Your task to perform on an android device: turn on showing notifications on the lock screen Image 0: 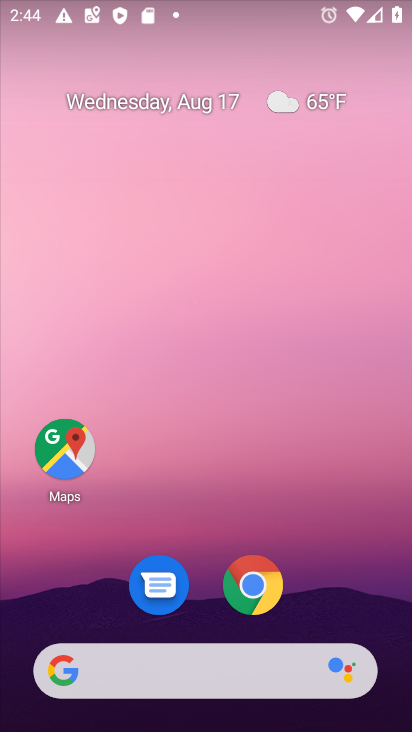
Step 0: drag from (214, 523) to (245, 0)
Your task to perform on an android device: turn on showing notifications on the lock screen Image 1: 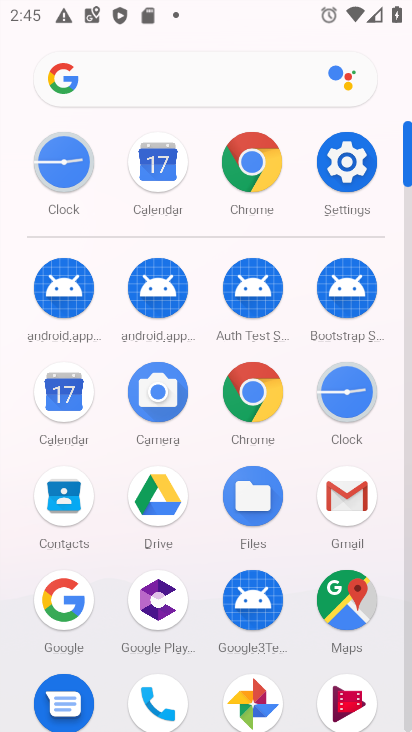
Step 1: click (357, 159)
Your task to perform on an android device: turn on showing notifications on the lock screen Image 2: 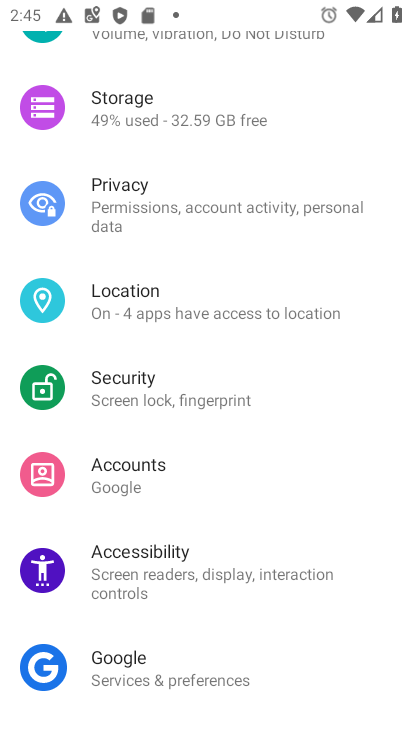
Step 2: drag from (224, 169) to (250, 661)
Your task to perform on an android device: turn on showing notifications on the lock screen Image 3: 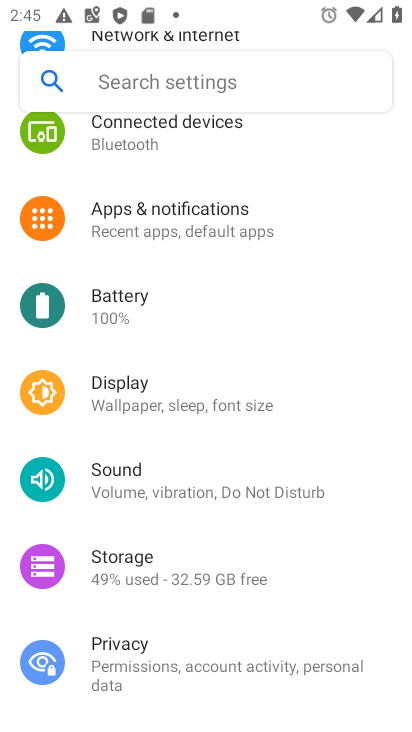
Step 3: drag from (190, 292) to (204, 573)
Your task to perform on an android device: turn on showing notifications on the lock screen Image 4: 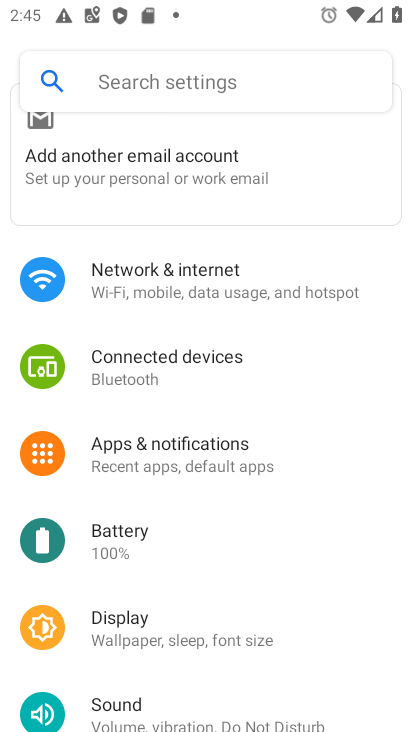
Step 4: click (200, 461)
Your task to perform on an android device: turn on showing notifications on the lock screen Image 5: 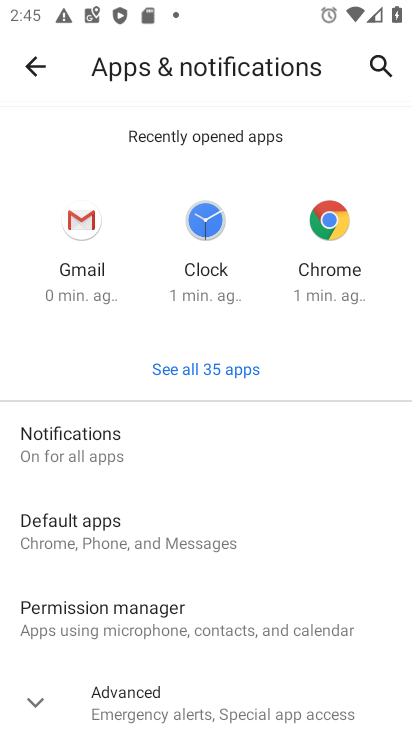
Step 5: click (106, 440)
Your task to perform on an android device: turn on showing notifications on the lock screen Image 6: 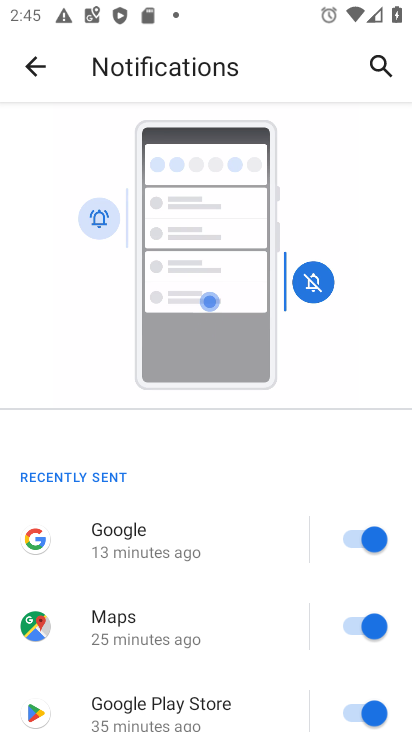
Step 6: drag from (233, 615) to (218, 176)
Your task to perform on an android device: turn on showing notifications on the lock screen Image 7: 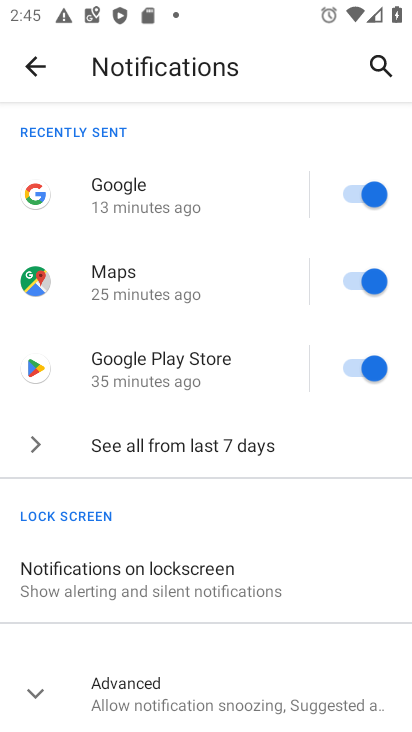
Step 7: click (228, 565)
Your task to perform on an android device: turn on showing notifications on the lock screen Image 8: 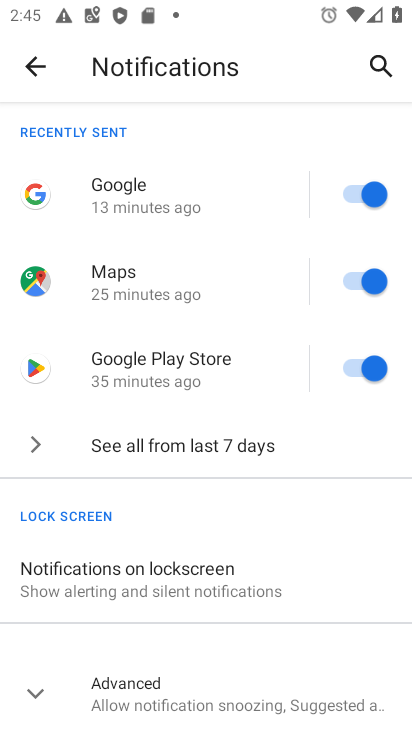
Step 8: click (228, 565)
Your task to perform on an android device: turn on showing notifications on the lock screen Image 9: 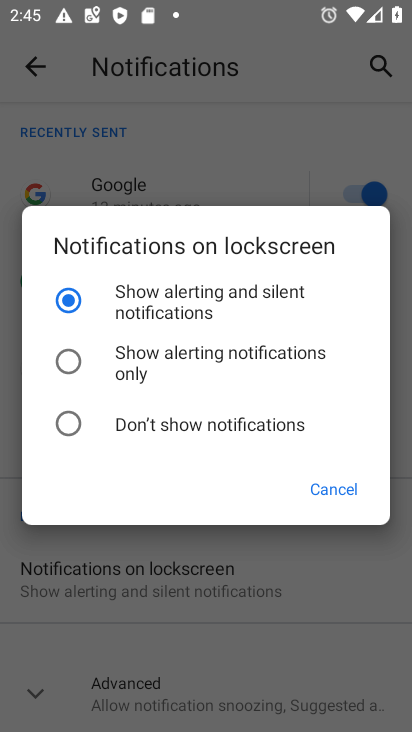
Step 9: click (203, 299)
Your task to perform on an android device: turn on showing notifications on the lock screen Image 10: 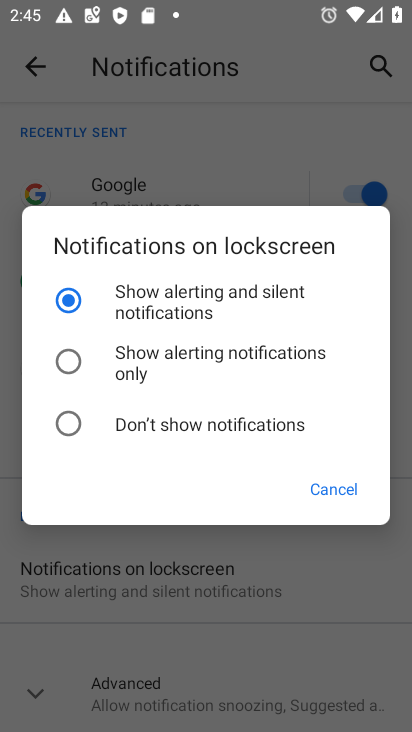
Step 10: click (206, 296)
Your task to perform on an android device: turn on showing notifications on the lock screen Image 11: 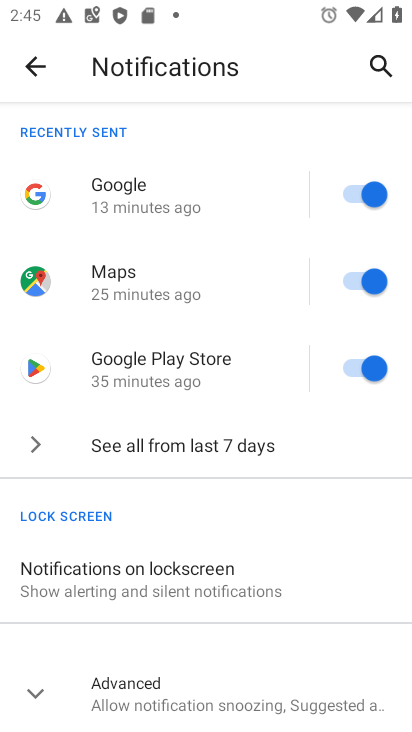
Step 11: task complete